Your task to perform on an android device: Open Wikipedia Image 0: 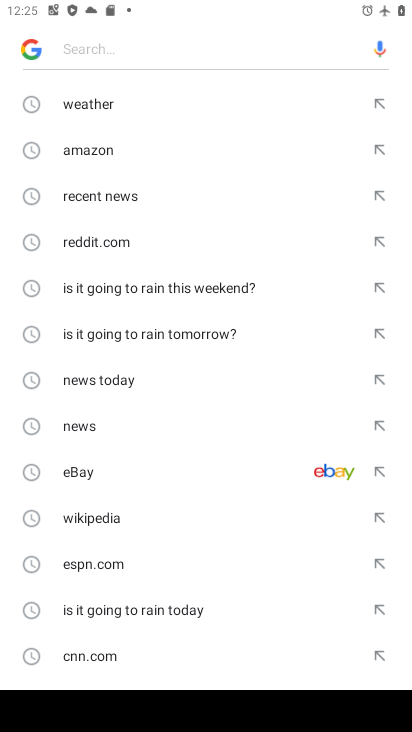
Step 0: press home button
Your task to perform on an android device: Open Wikipedia Image 1: 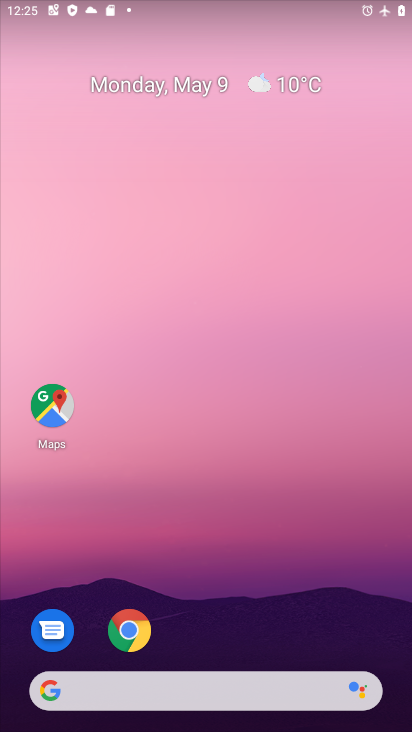
Step 1: click (124, 631)
Your task to perform on an android device: Open Wikipedia Image 2: 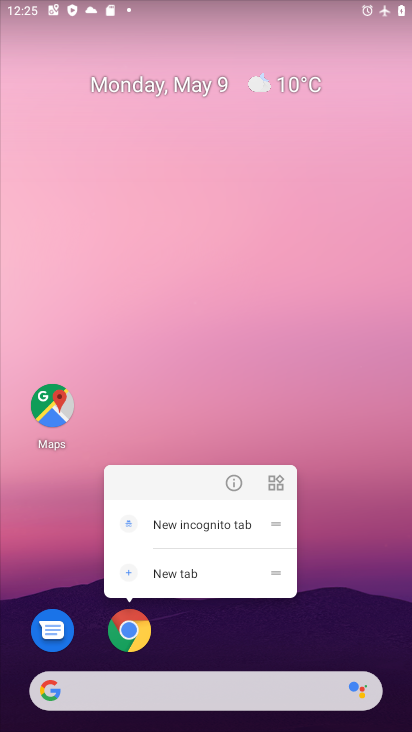
Step 2: click (125, 631)
Your task to perform on an android device: Open Wikipedia Image 3: 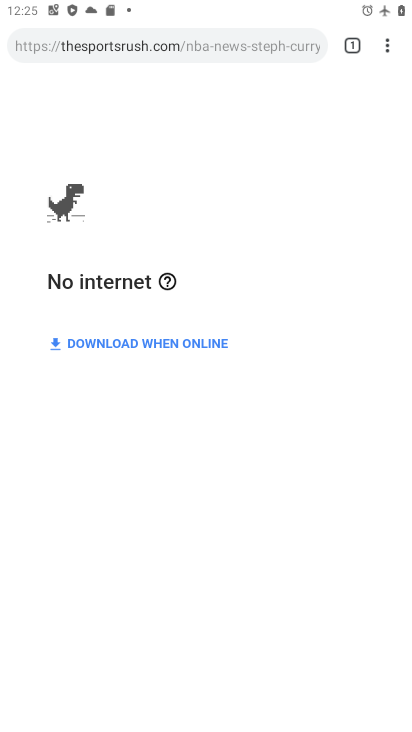
Step 3: click (233, 46)
Your task to perform on an android device: Open Wikipedia Image 4: 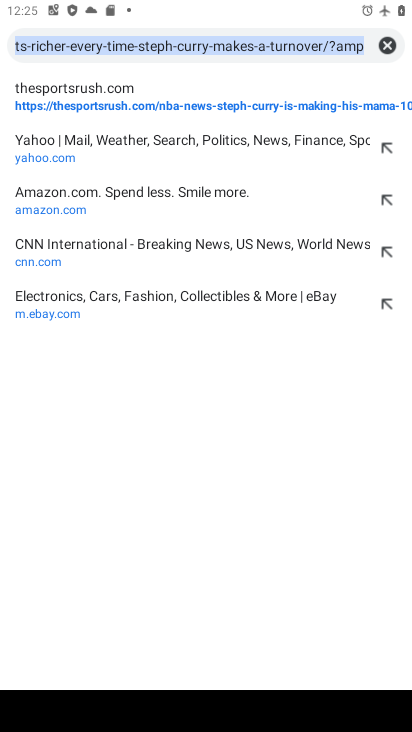
Step 4: click (388, 47)
Your task to perform on an android device: Open Wikipedia Image 5: 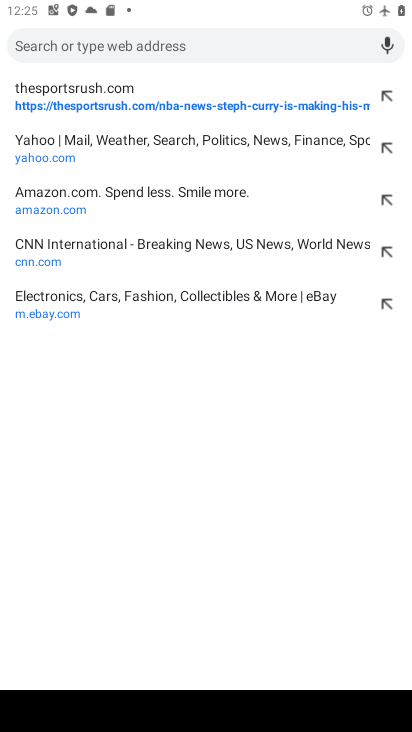
Step 5: type "wikipedia"
Your task to perform on an android device: Open Wikipedia Image 6: 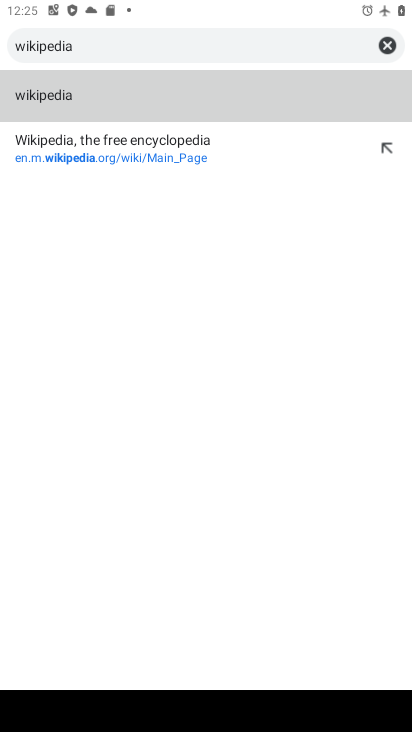
Step 6: click (230, 94)
Your task to perform on an android device: Open Wikipedia Image 7: 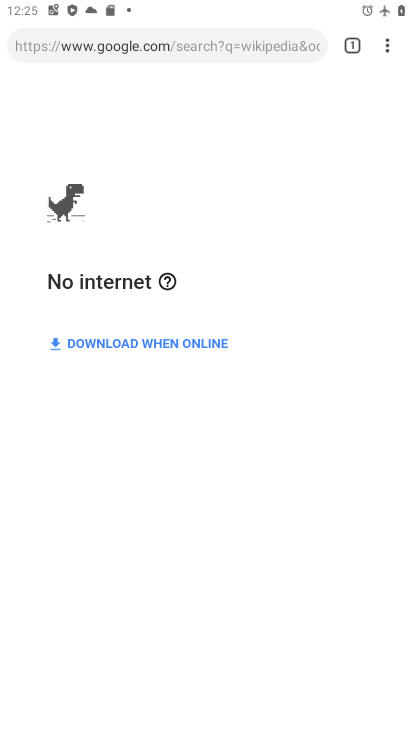
Step 7: task complete